Your task to perform on an android device: toggle improve location accuracy Image 0: 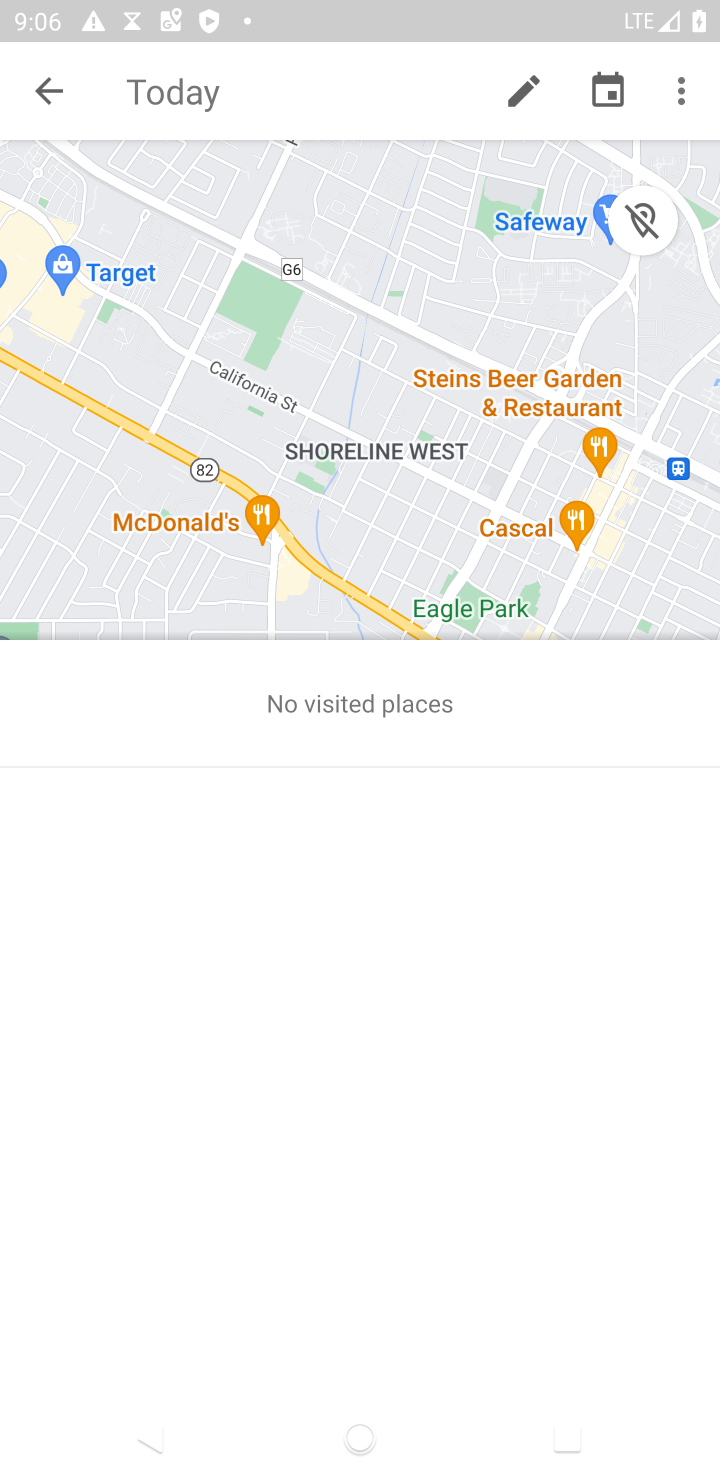
Step 0: press back button
Your task to perform on an android device: toggle improve location accuracy Image 1: 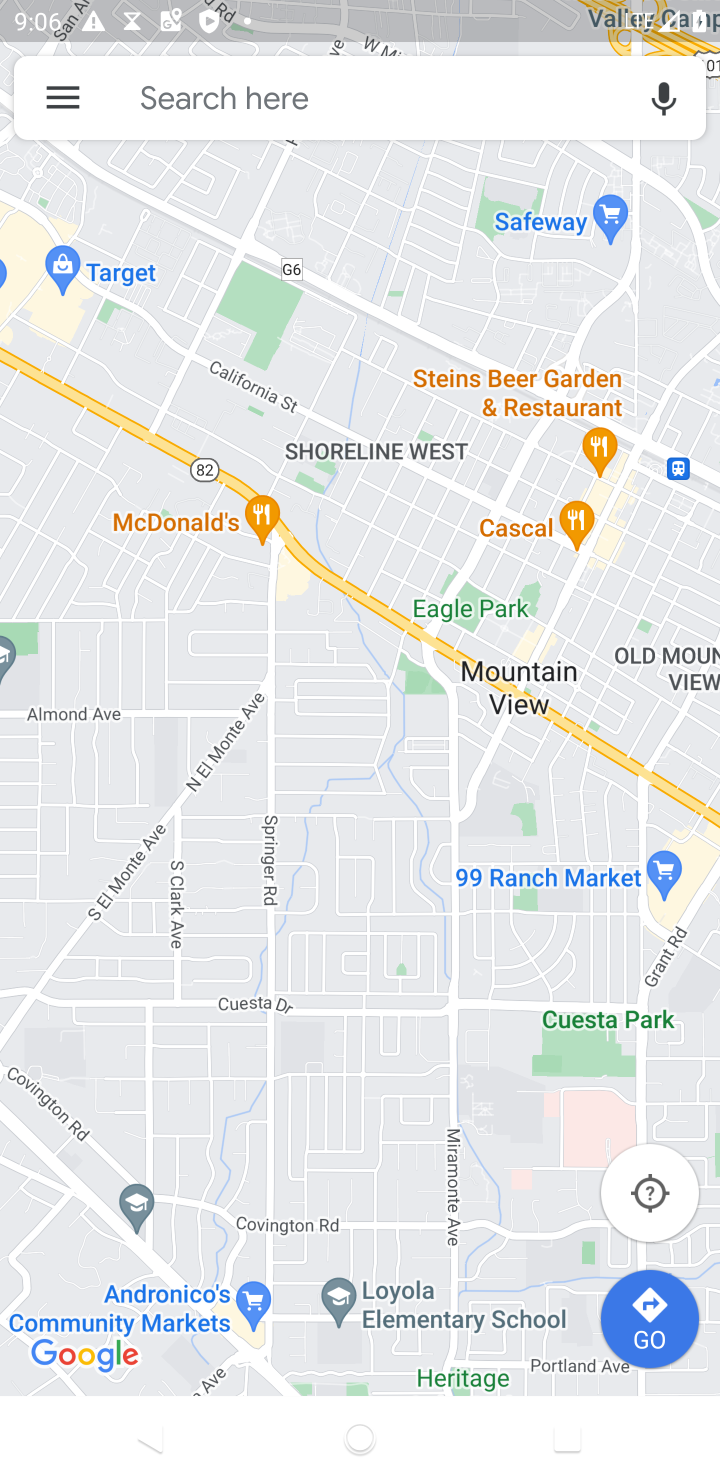
Step 1: press back button
Your task to perform on an android device: toggle improve location accuracy Image 2: 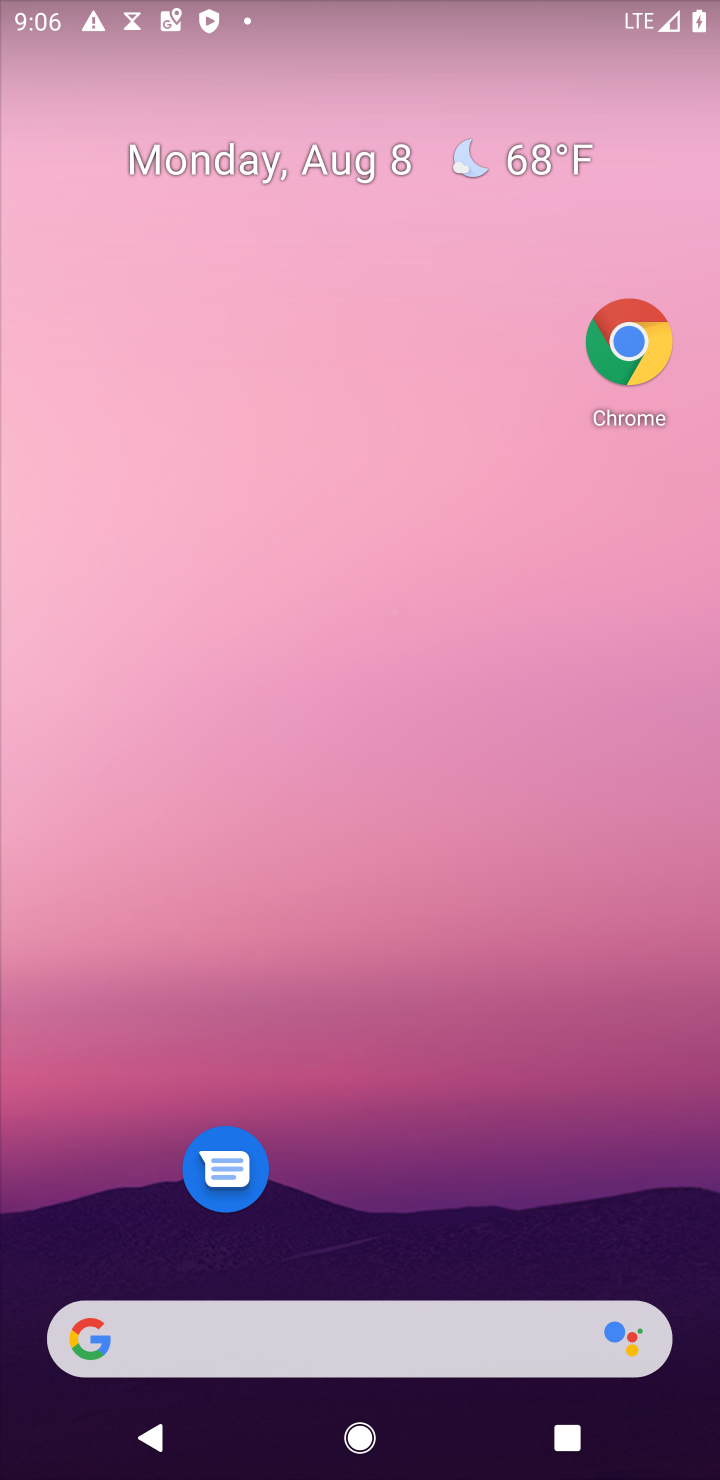
Step 2: drag from (389, 1183) to (472, 134)
Your task to perform on an android device: toggle improve location accuracy Image 3: 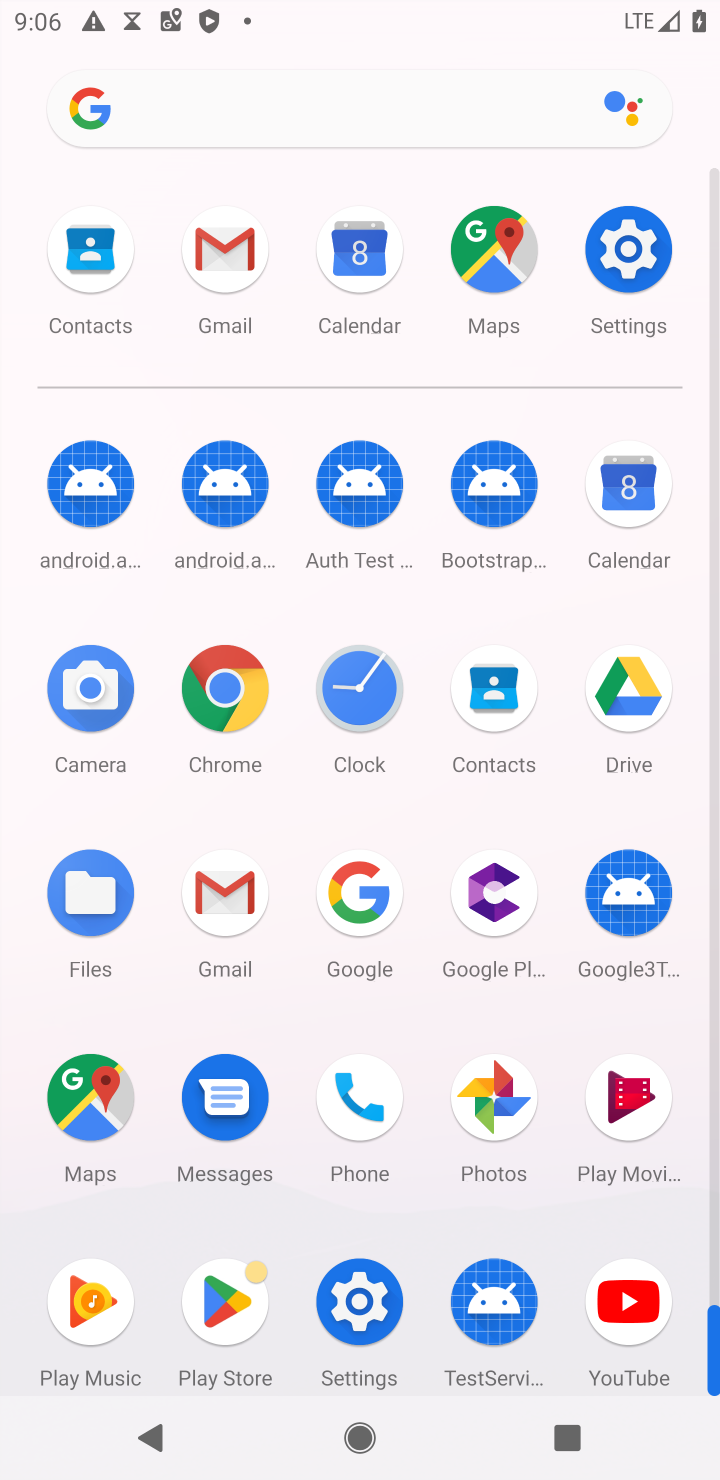
Step 3: click (631, 260)
Your task to perform on an android device: toggle improve location accuracy Image 4: 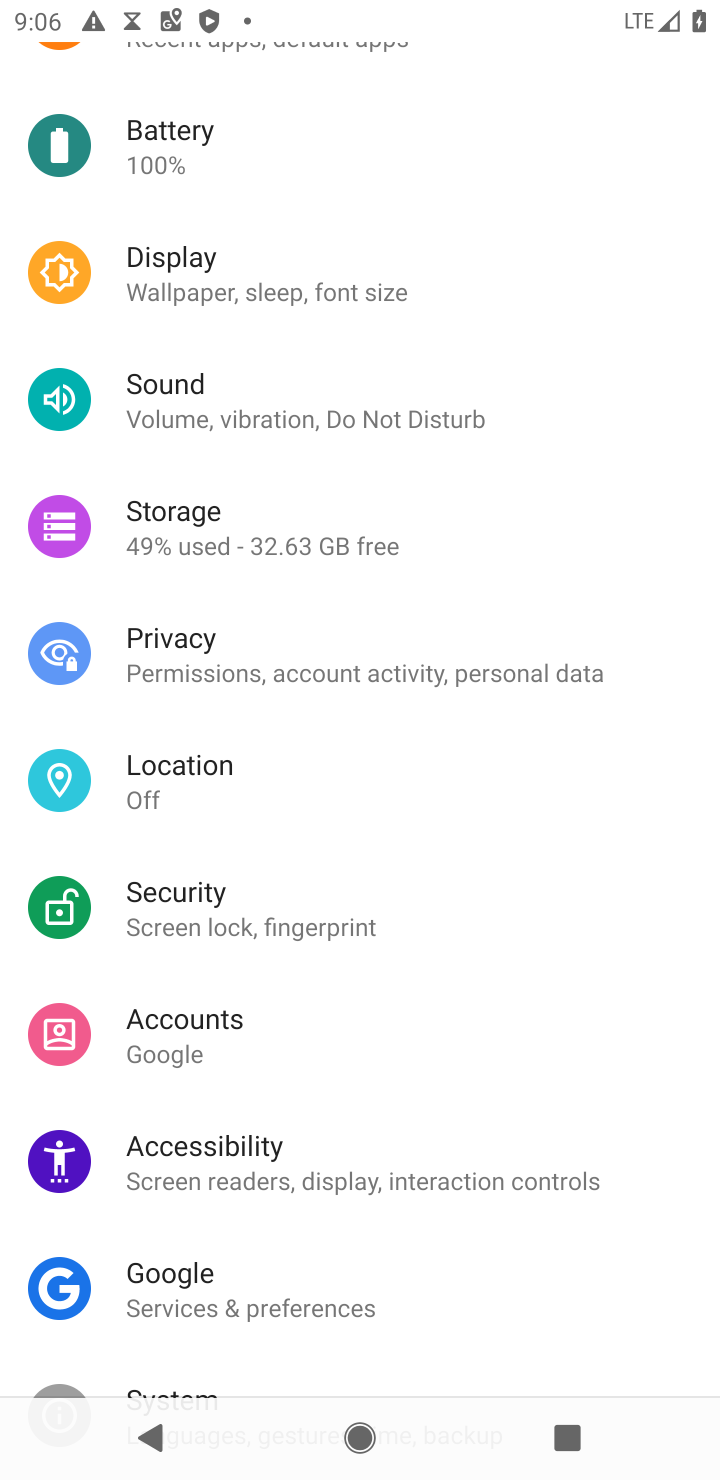
Step 4: click (184, 769)
Your task to perform on an android device: toggle improve location accuracy Image 5: 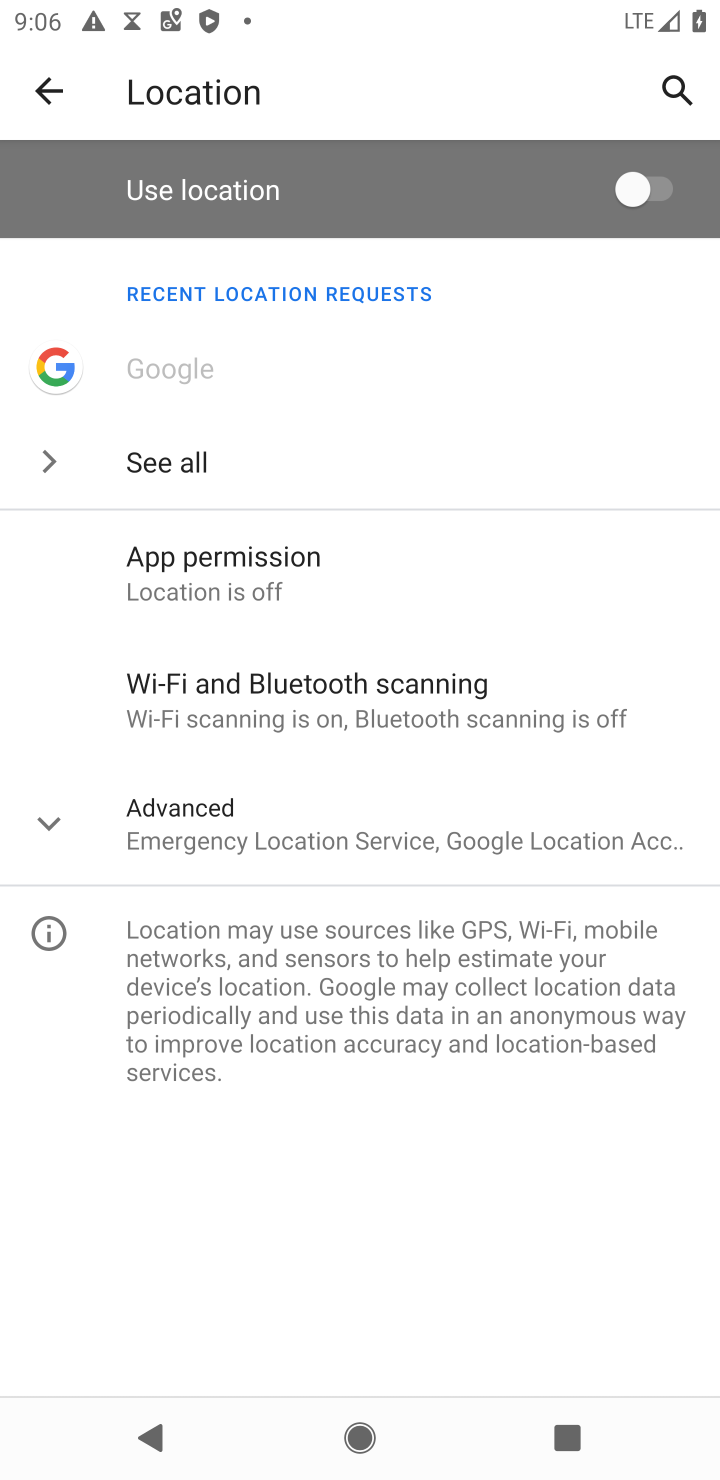
Step 5: click (320, 836)
Your task to perform on an android device: toggle improve location accuracy Image 6: 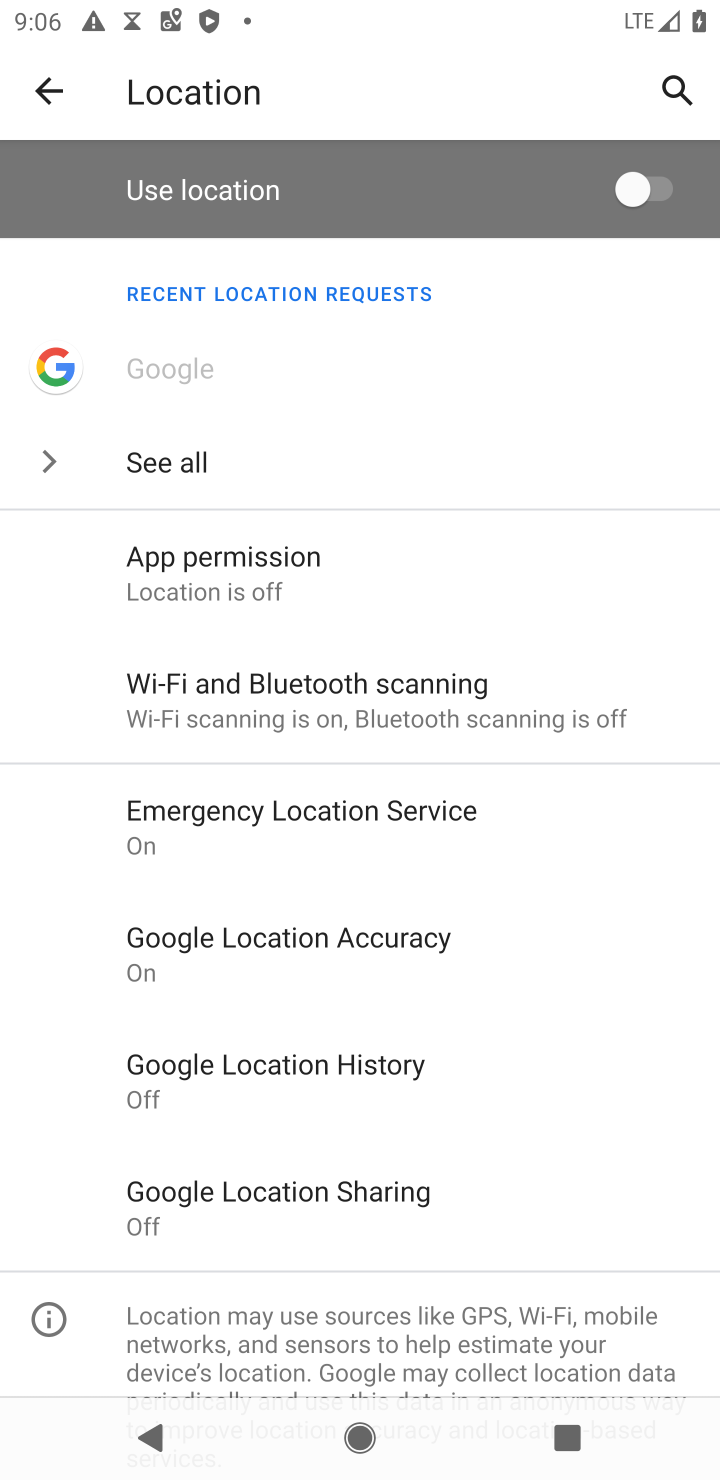
Step 6: click (305, 938)
Your task to perform on an android device: toggle improve location accuracy Image 7: 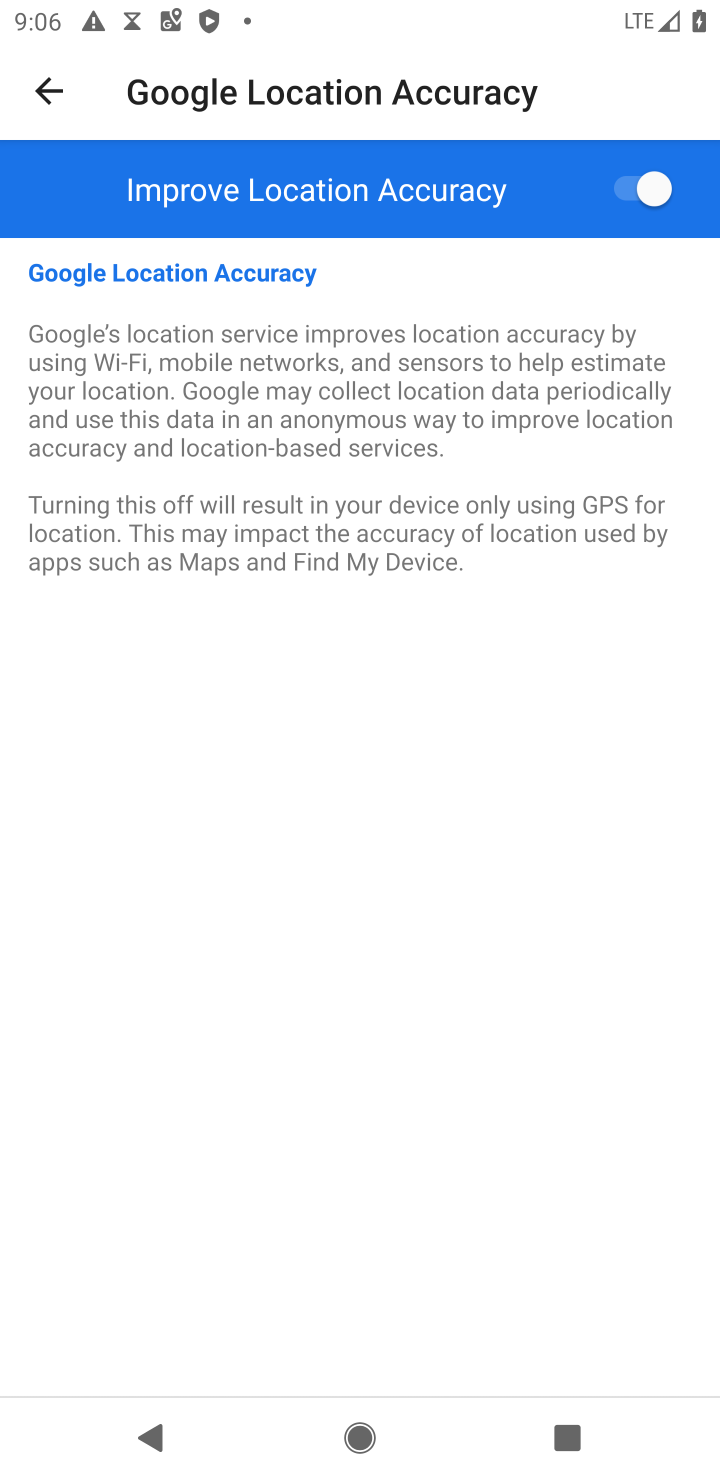
Step 7: click (640, 181)
Your task to perform on an android device: toggle improve location accuracy Image 8: 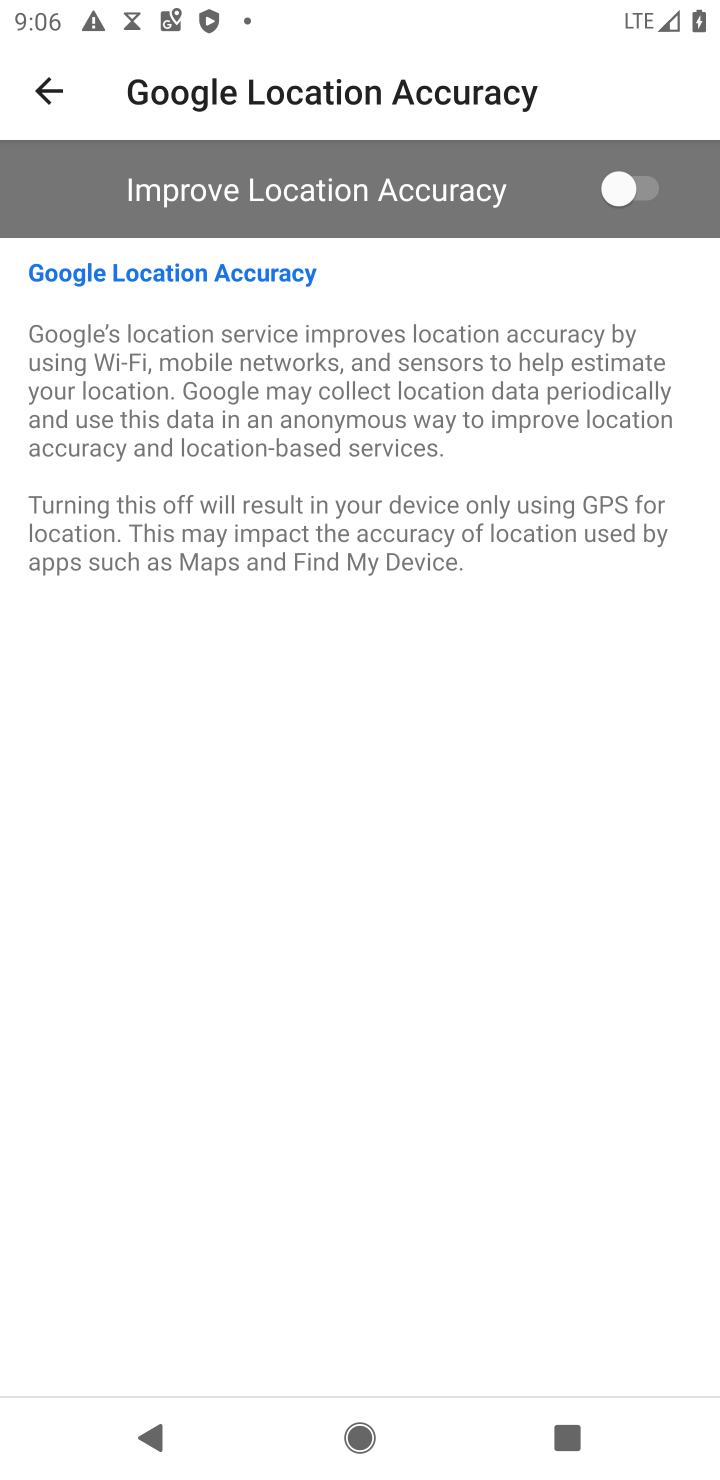
Step 8: task complete